Your task to perform on an android device: What's the news in Peru? Image 0: 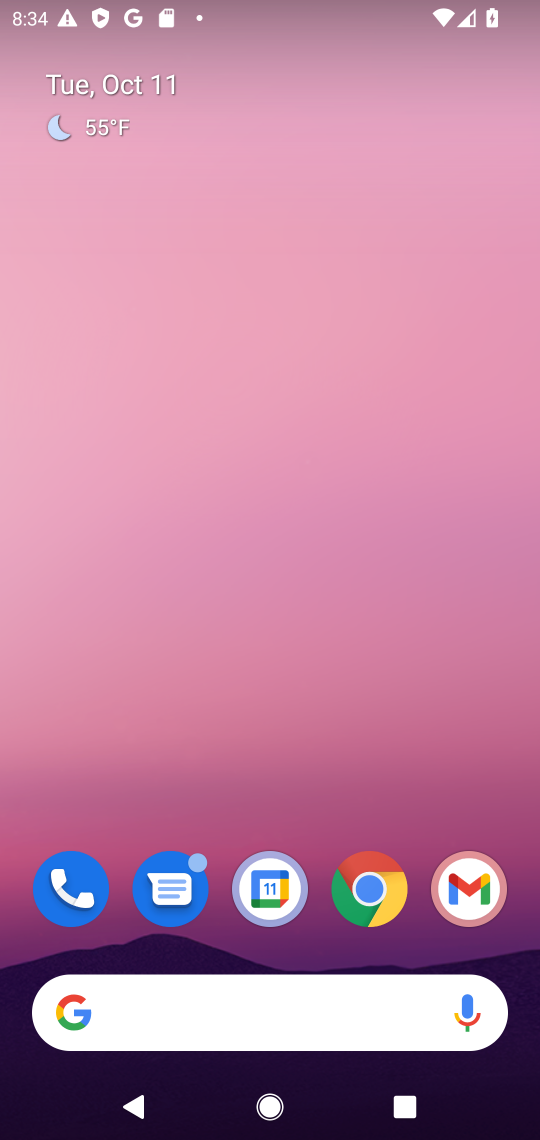
Step 0: click (245, 1000)
Your task to perform on an android device: What's the news in Peru? Image 1: 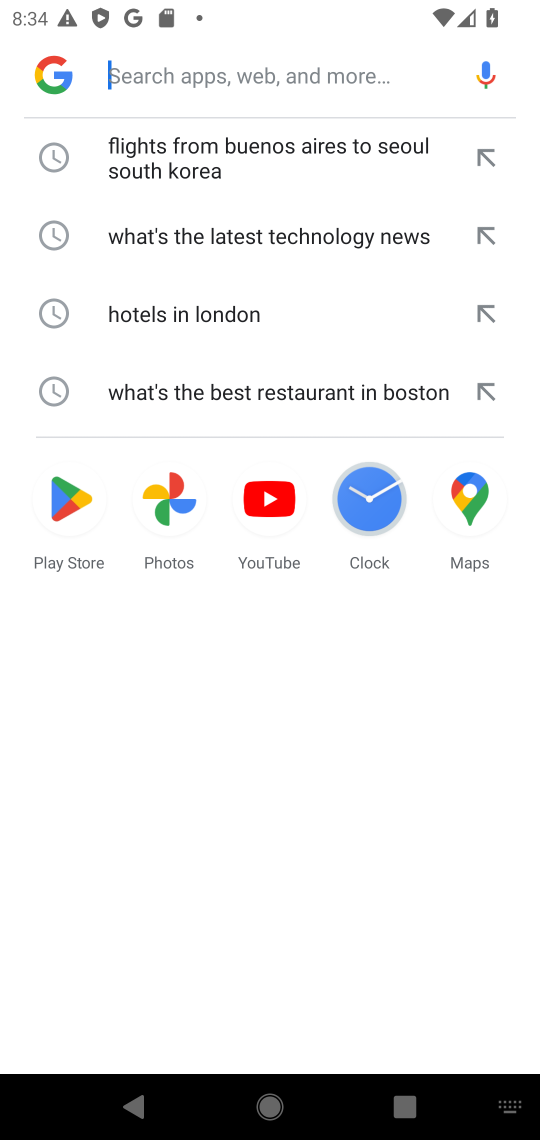
Step 1: type "What's the news in Peru?"
Your task to perform on an android device: What's the news in Peru? Image 2: 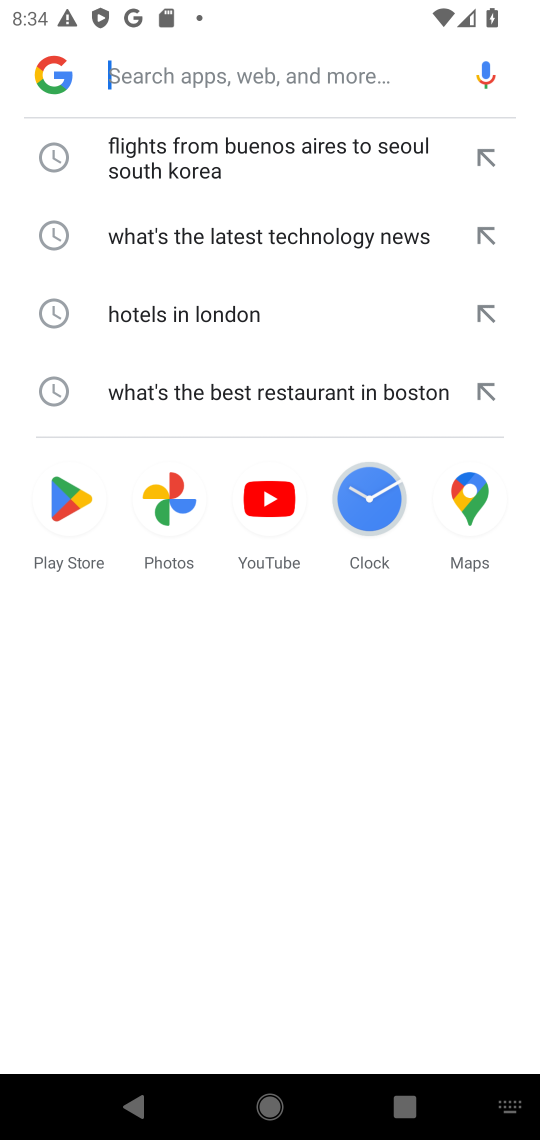
Step 2: click (285, 749)
Your task to perform on an android device: What's the news in Peru? Image 3: 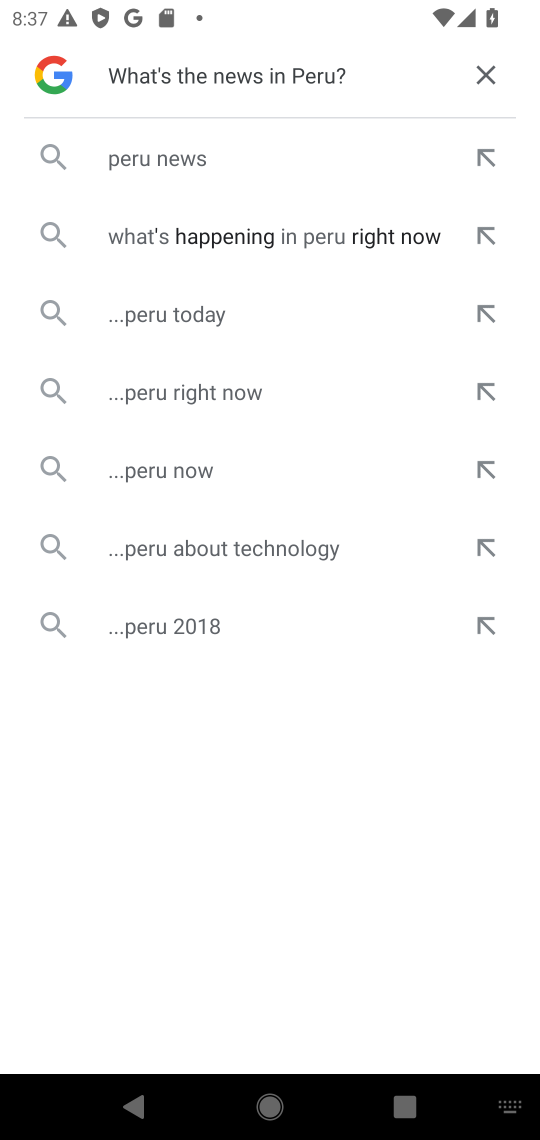
Step 3: click (124, 152)
Your task to perform on an android device: What's the news in Peru? Image 4: 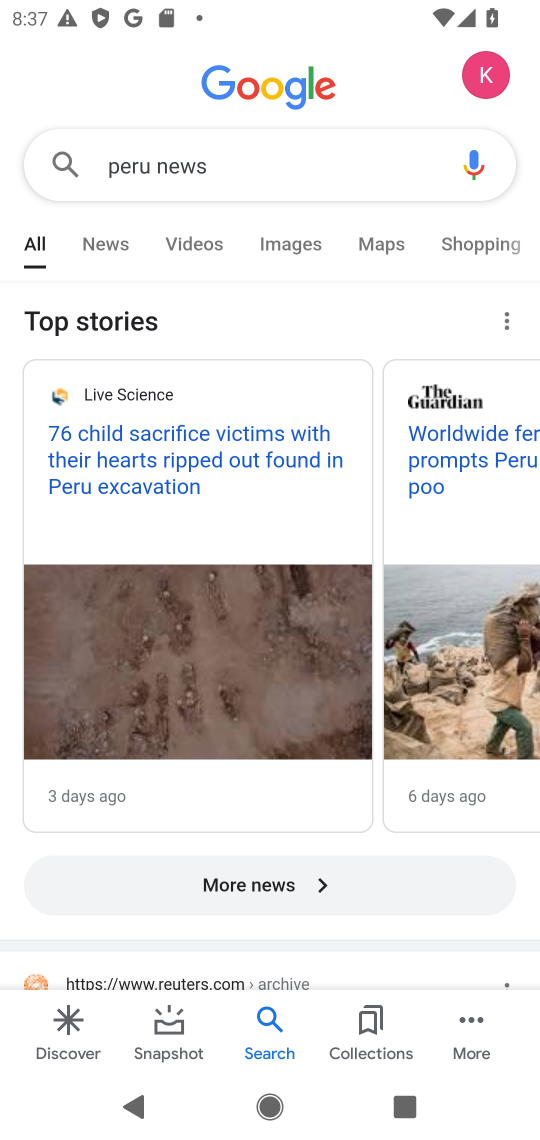
Step 4: task complete